Your task to perform on an android device: Search for vegetarian restaurants on Maps Image 0: 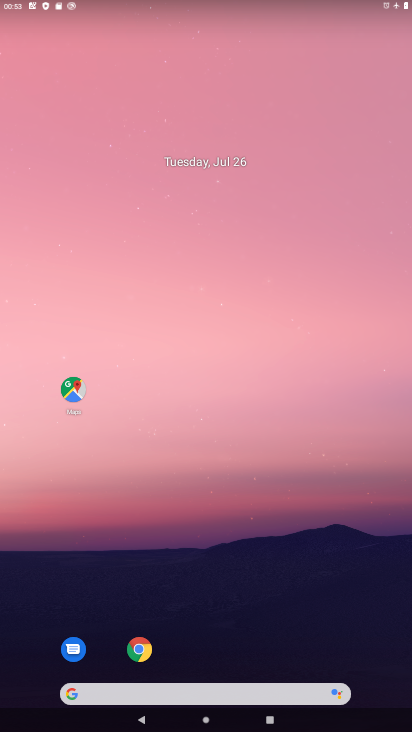
Step 0: press home button
Your task to perform on an android device: Search for vegetarian restaurants on Maps Image 1: 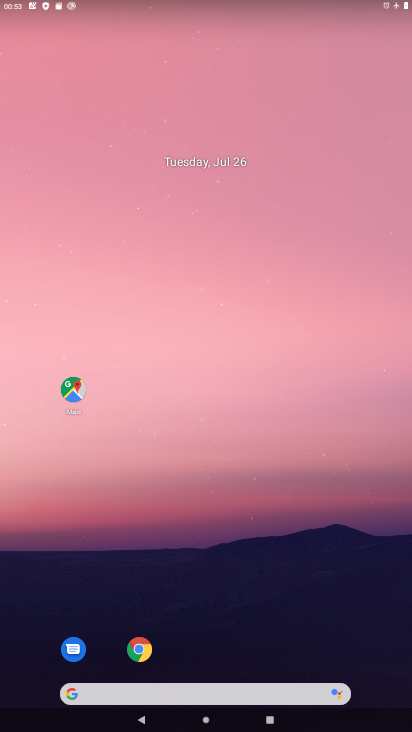
Step 1: drag from (220, 718) to (220, 282)
Your task to perform on an android device: Search for vegetarian restaurants on Maps Image 2: 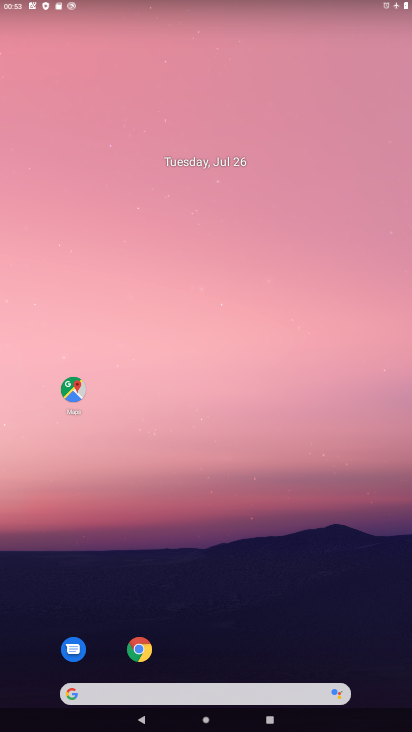
Step 2: drag from (234, 730) to (225, 68)
Your task to perform on an android device: Search for vegetarian restaurants on Maps Image 3: 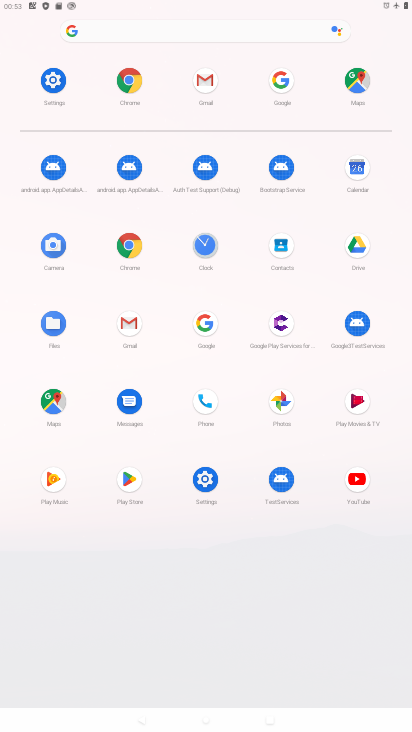
Step 3: click (48, 398)
Your task to perform on an android device: Search for vegetarian restaurants on Maps Image 4: 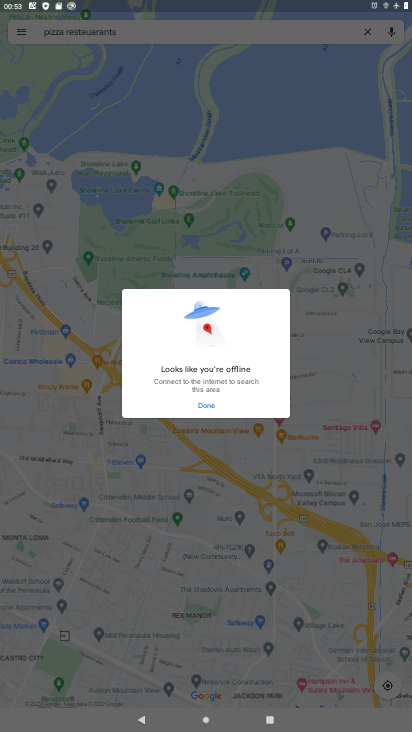
Step 4: click (204, 402)
Your task to perform on an android device: Search for vegetarian restaurants on Maps Image 5: 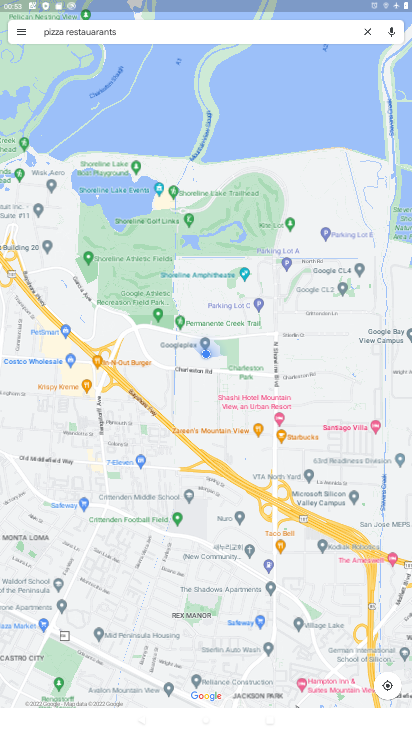
Step 5: task complete